Your task to perform on an android device: change keyboard looks Image 0: 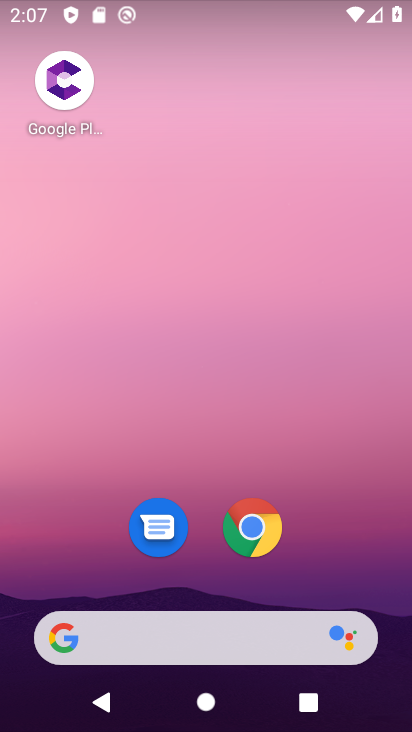
Step 0: drag from (390, 620) to (322, 192)
Your task to perform on an android device: change keyboard looks Image 1: 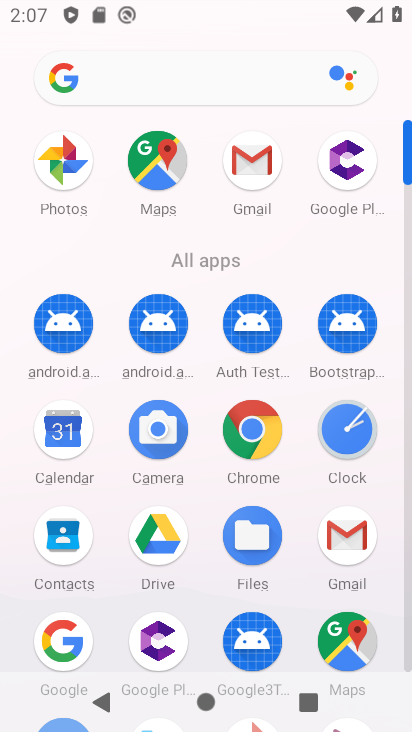
Step 1: click (404, 651)
Your task to perform on an android device: change keyboard looks Image 2: 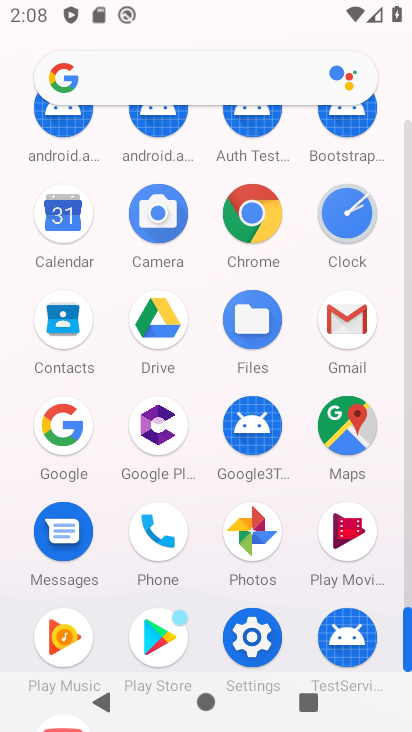
Step 2: click (255, 636)
Your task to perform on an android device: change keyboard looks Image 3: 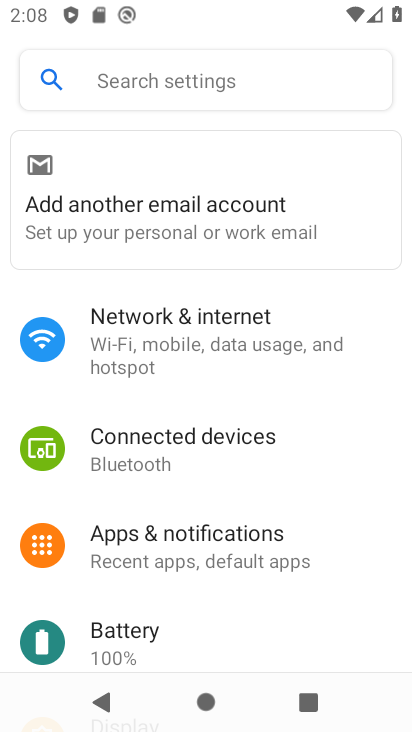
Step 3: drag from (310, 623) to (291, 236)
Your task to perform on an android device: change keyboard looks Image 4: 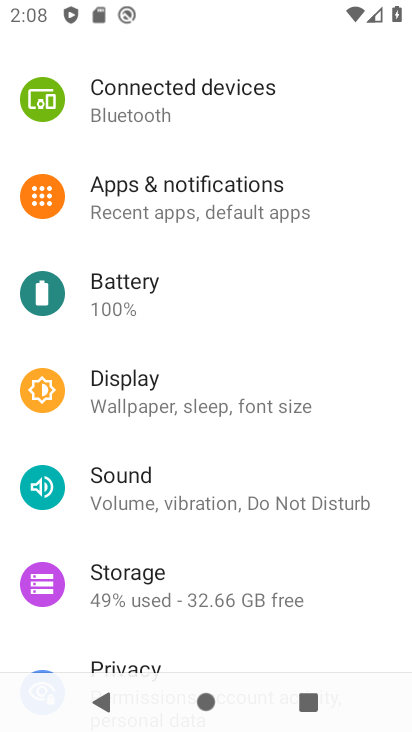
Step 4: drag from (279, 550) to (295, 213)
Your task to perform on an android device: change keyboard looks Image 5: 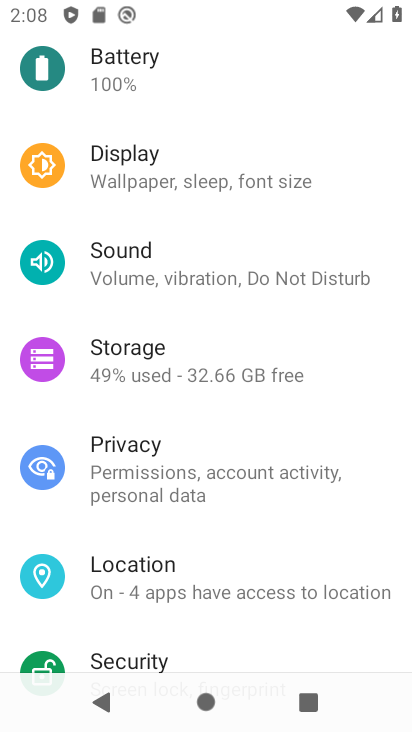
Step 5: drag from (268, 624) to (249, 221)
Your task to perform on an android device: change keyboard looks Image 6: 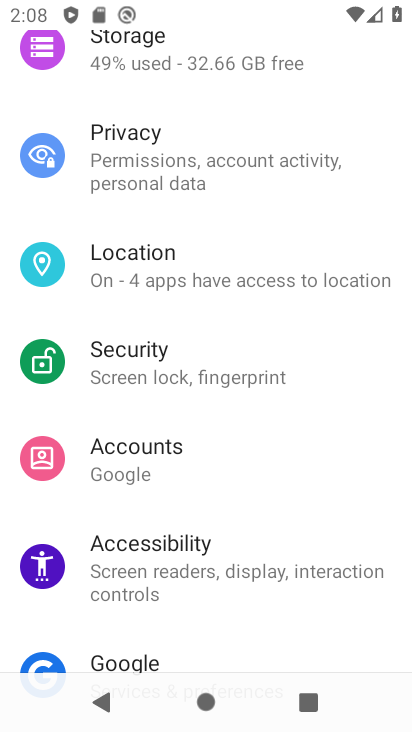
Step 6: drag from (273, 568) to (257, 219)
Your task to perform on an android device: change keyboard looks Image 7: 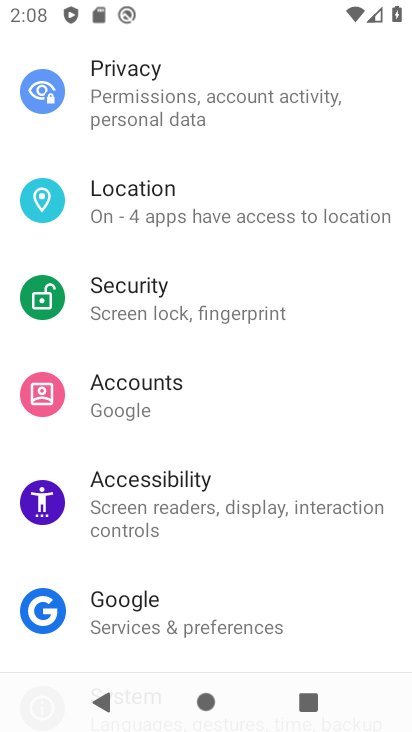
Step 7: drag from (245, 598) to (251, 210)
Your task to perform on an android device: change keyboard looks Image 8: 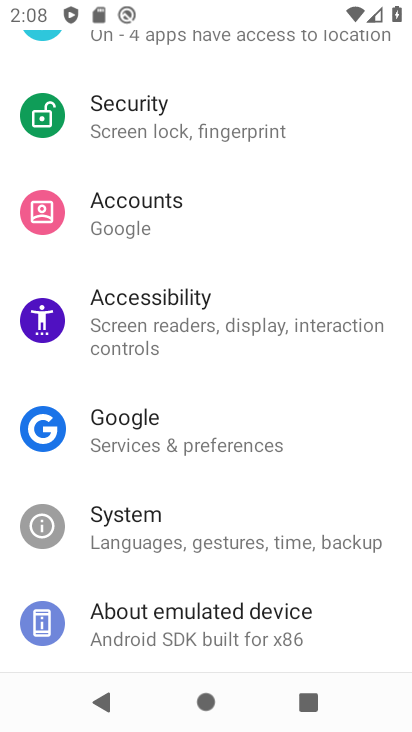
Step 8: click (147, 540)
Your task to perform on an android device: change keyboard looks Image 9: 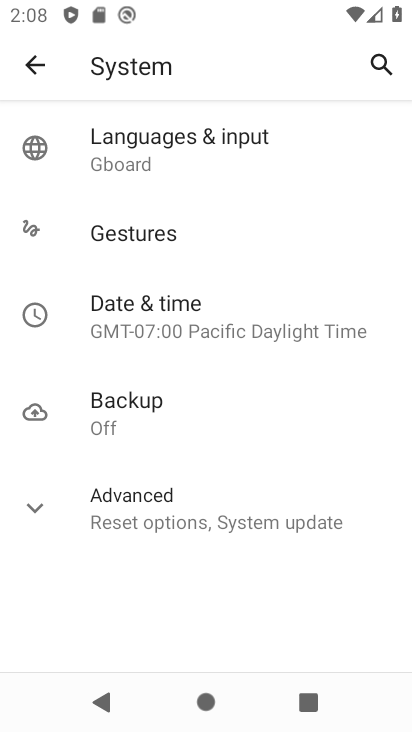
Step 9: click (140, 148)
Your task to perform on an android device: change keyboard looks Image 10: 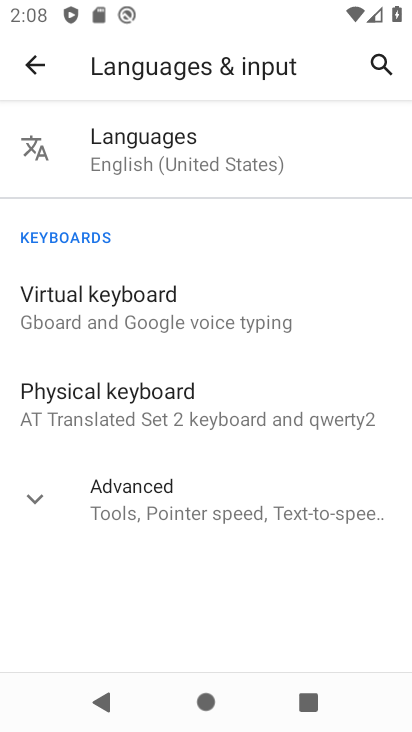
Step 10: click (100, 398)
Your task to perform on an android device: change keyboard looks Image 11: 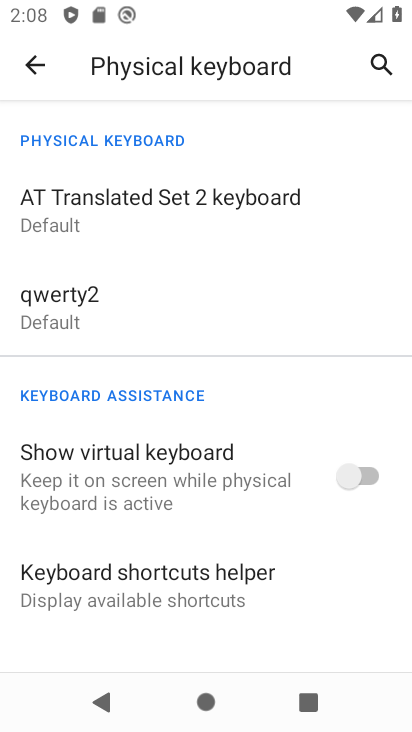
Step 11: click (72, 306)
Your task to perform on an android device: change keyboard looks Image 12: 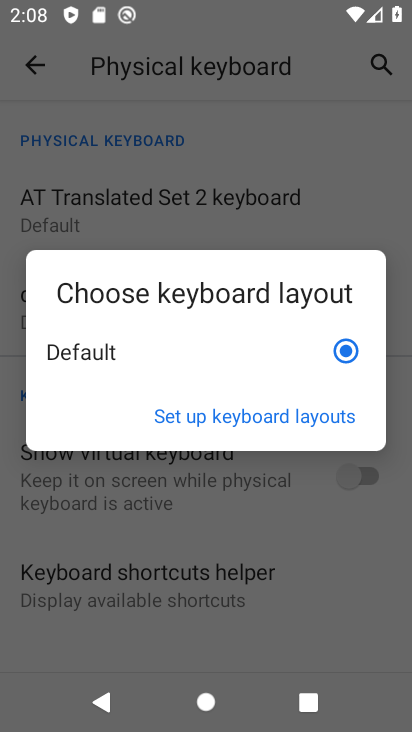
Step 12: click (240, 414)
Your task to perform on an android device: change keyboard looks Image 13: 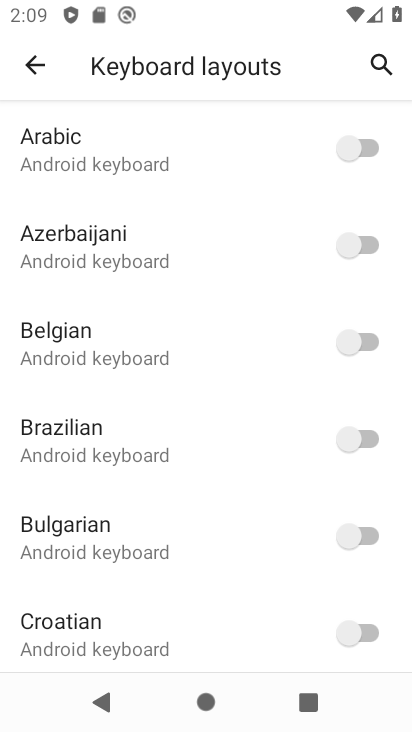
Step 13: drag from (281, 591) to (232, 198)
Your task to perform on an android device: change keyboard looks Image 14: 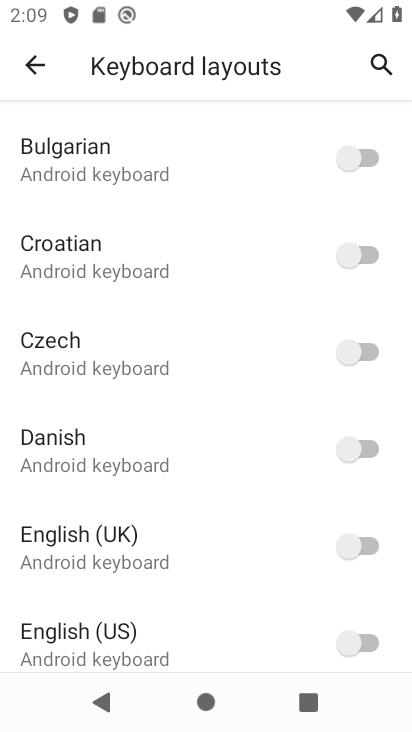
Step 14: click (370, 547)
Your task to perform on an android device: change keyboard looks Image 15: 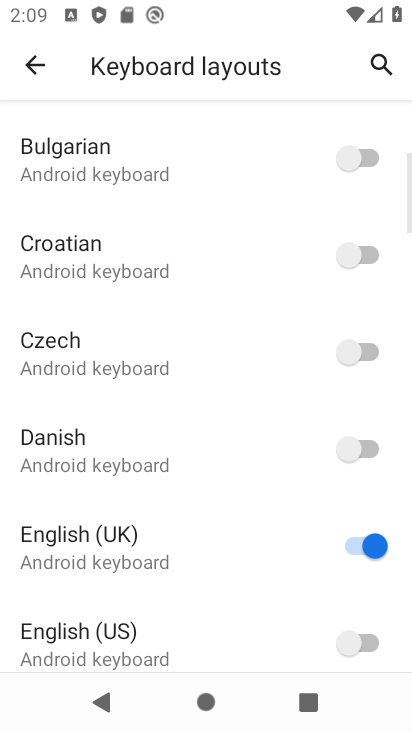
Step 15: task complete